Your task to perform on an android device: change notifications settings Image 0: 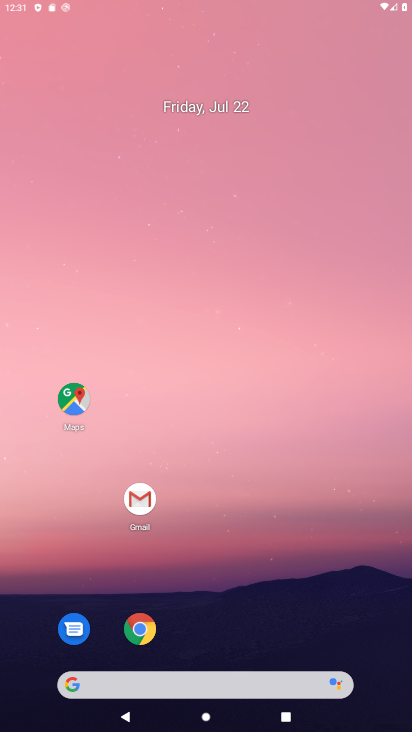
Step 0: drag from (257, 630) to (231, 222)
Your task to perform on an android device: change notifications settings Image 1: 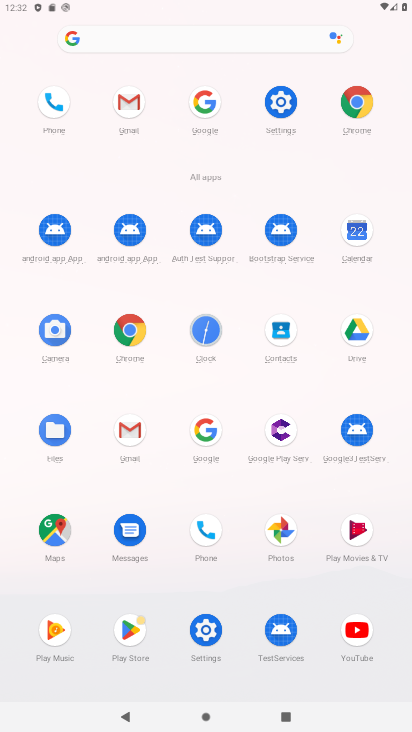
Step 1: click (205, 636)
Your task to perform on an android device: change notifications settings Image 2: 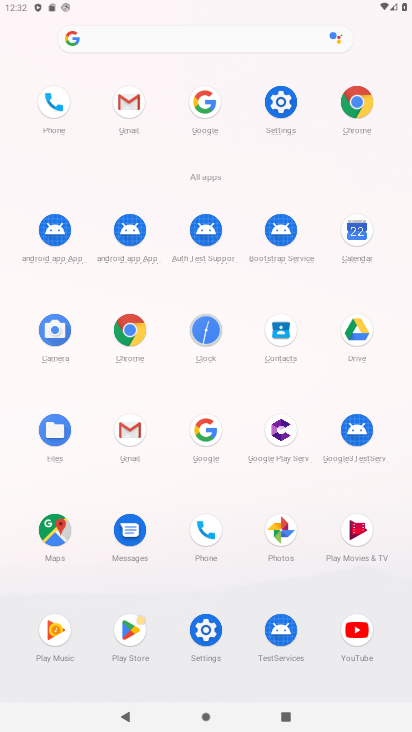
Step 2: click (205, 636)
Your task to perform on an android device: change notifications settings Image 3: 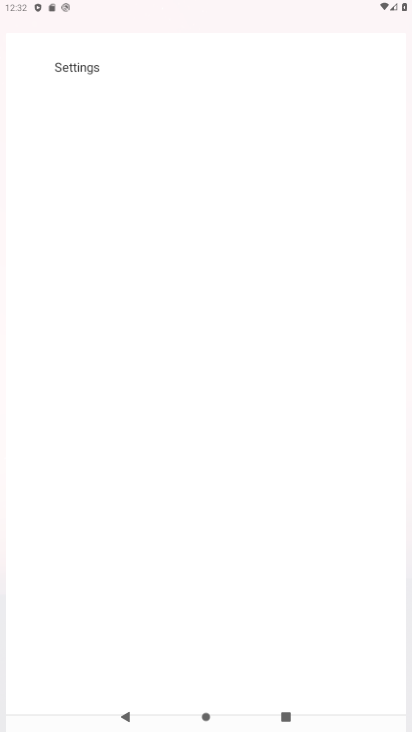
Step 3: click (205, 636)
Your task to perform on an android device: change notifications settings Image 4: 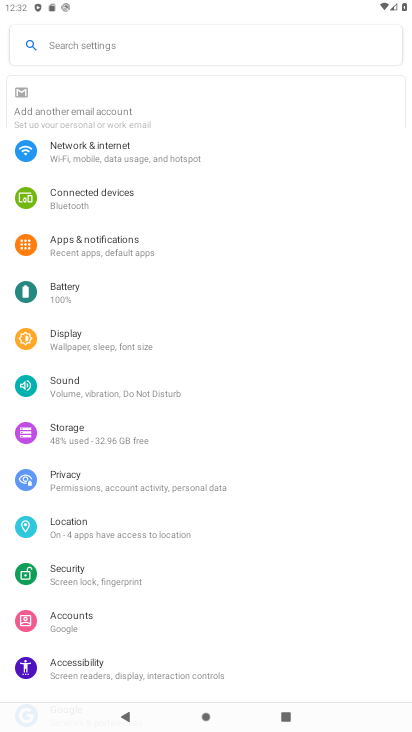
Step 4: click (205, 636)
Your task to perform on an android device: change notifications settings Image 5: 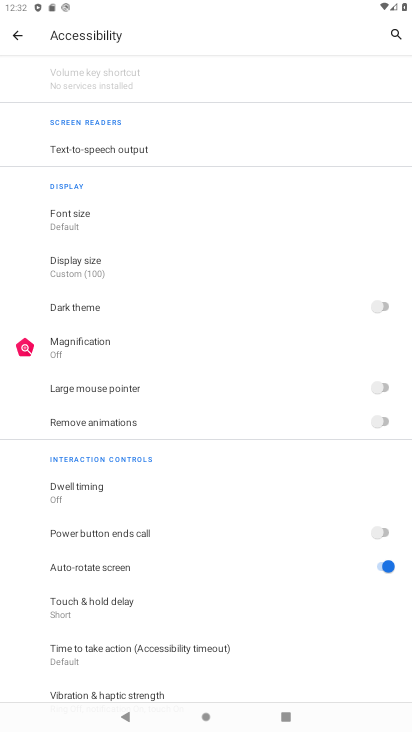
Step 5: click (20, 38)
Your task to perform on an android device: change notifications settings Image 6: 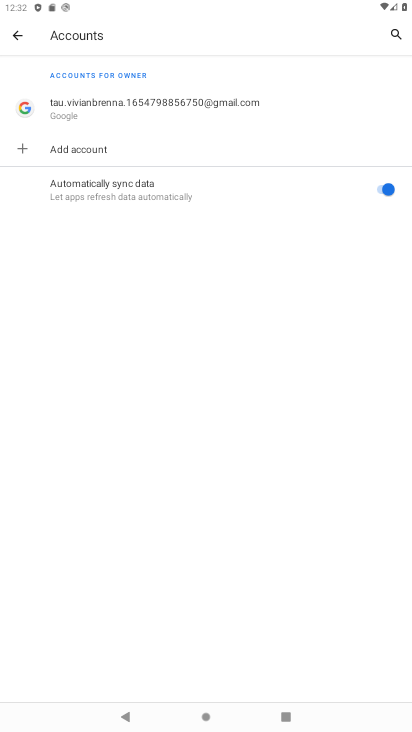
Step 6: click (12, 31)
Your task to perform on an android device: change notifications settings Image 7: 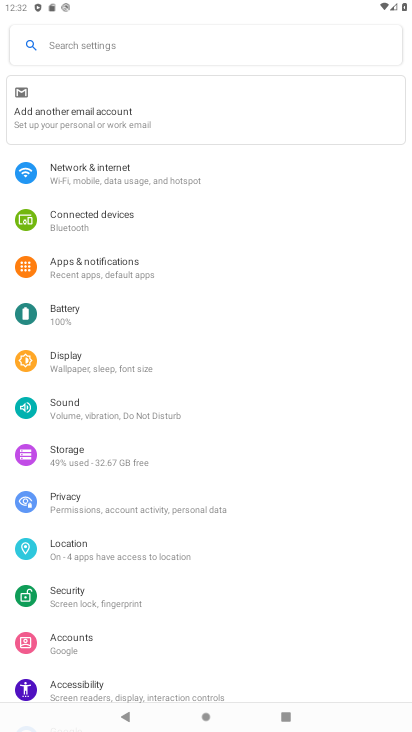
Step 7: click (99, 262)
Your task to perform on an android device: change notifications settings Image 8: 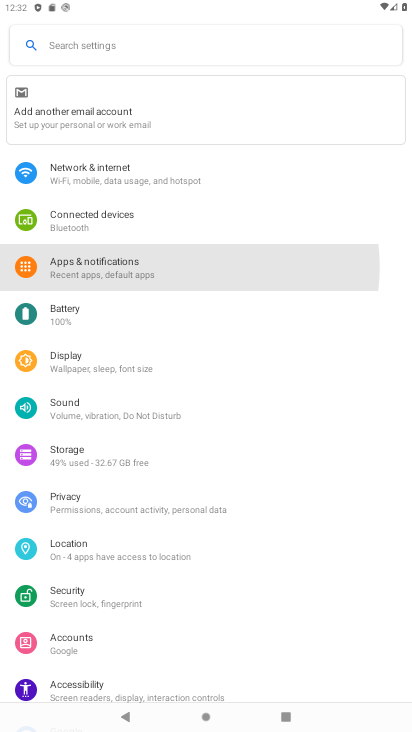
Step 8: click (99, 262)
Your task to perform on an android device: change notifications settings Image 9: 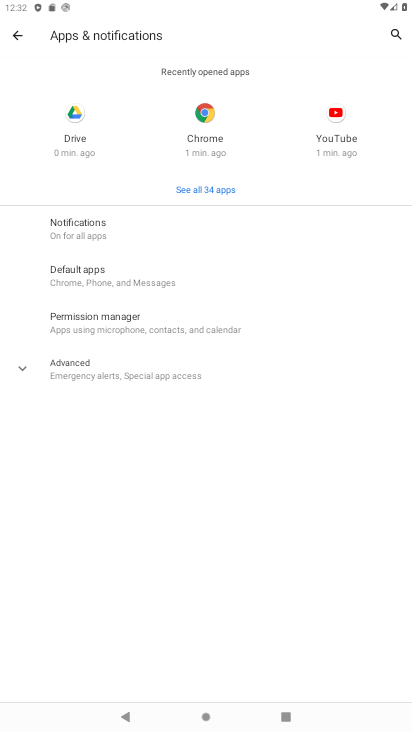
Step 9: click (87, 247)
Your task to perform on an android device: change notifications settings Image 10: 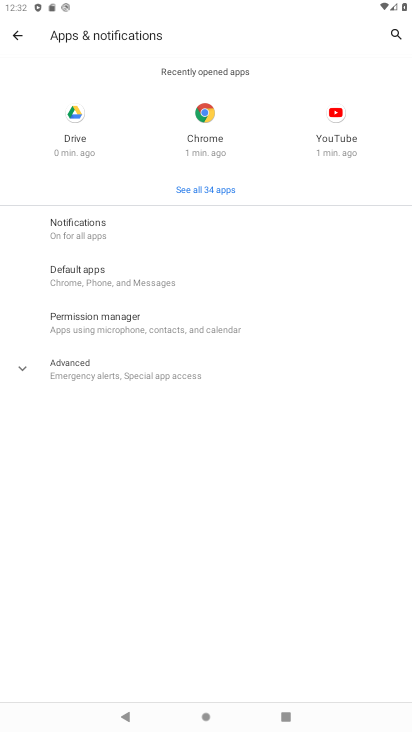
Step 10: click (80, 223)
Your task to perform on an android device: change notifications settings Image 11: 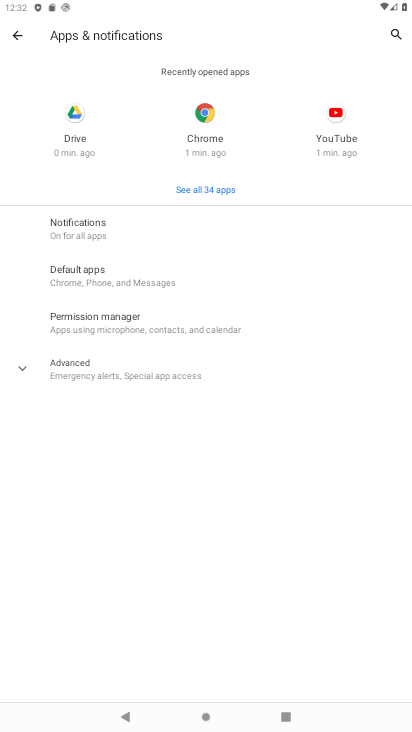
Step 11: click (77, 224)
Your task to perform on an android device: change notifications settings Image 12: 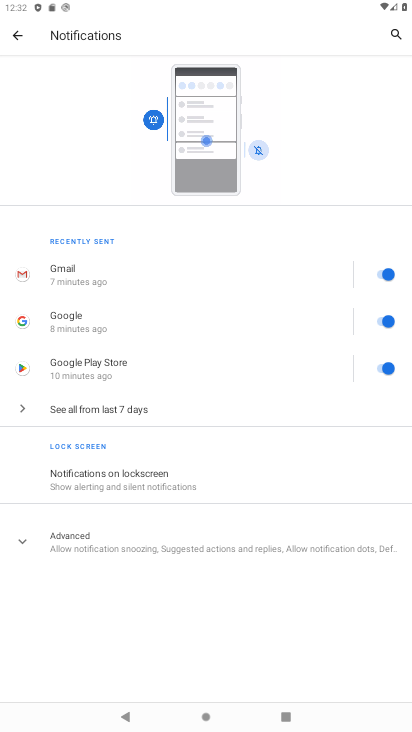
Step 12: click (100, 477)
Your task to perform on an android device: change notifications settings Image 13: 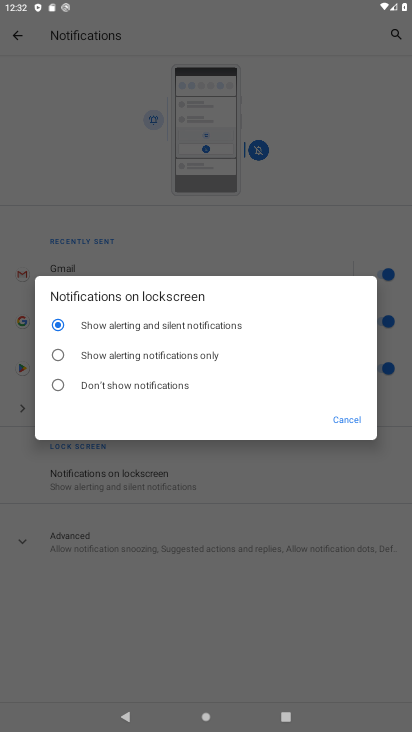
Step 13: click (328, 419)
Your task to perform on an android device: change notifications settings Image 14: 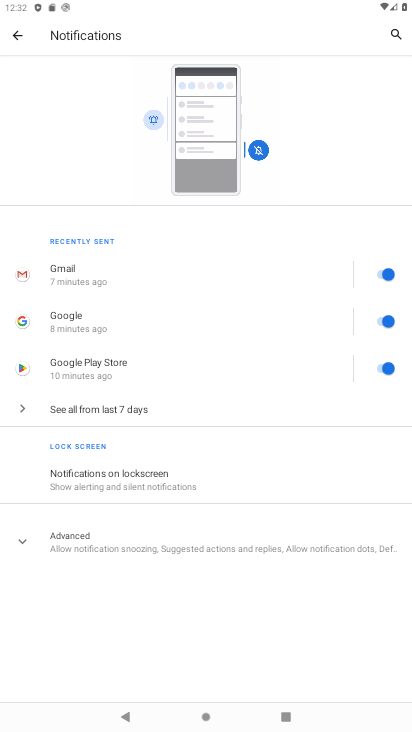
Step 14: task complete